Your task to perform on an android device: Open notification settings Image 0: 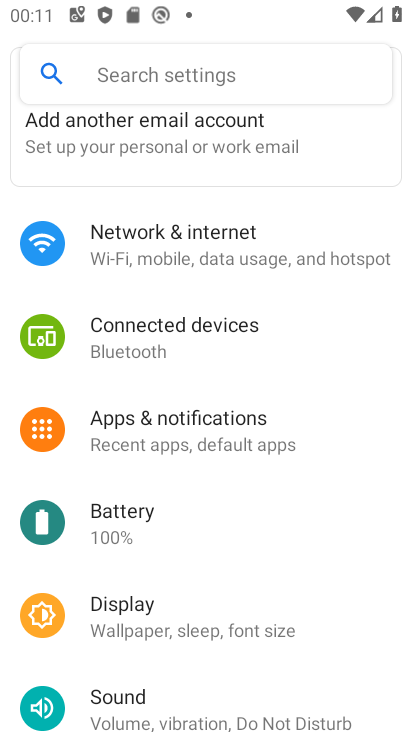
Step 0: click (163, 439)
Your task to perform on an android device: Open notification settings Image 1: 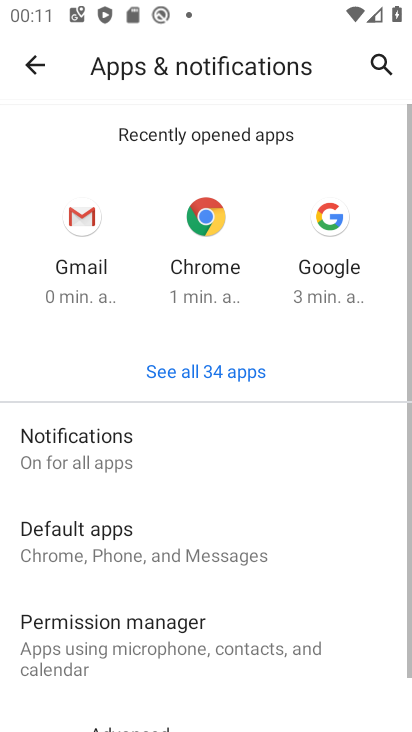
Step 1: click (156, 435)
Your task to perform on an android device: Open notification settings Image 2: 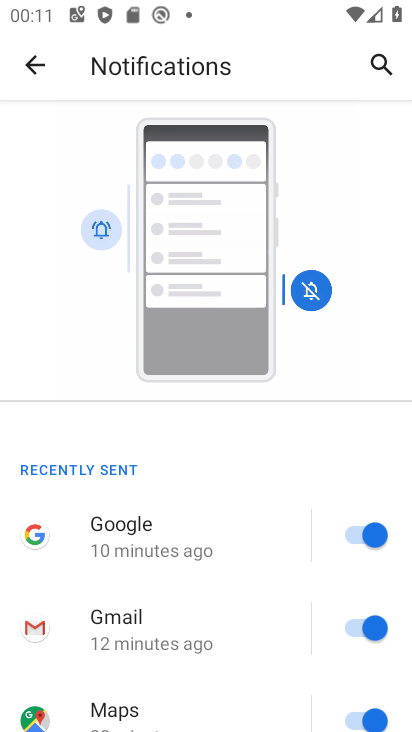
Step 2: task complete